Your task to perform on an android device: turn on improve location accuracy Image 0: 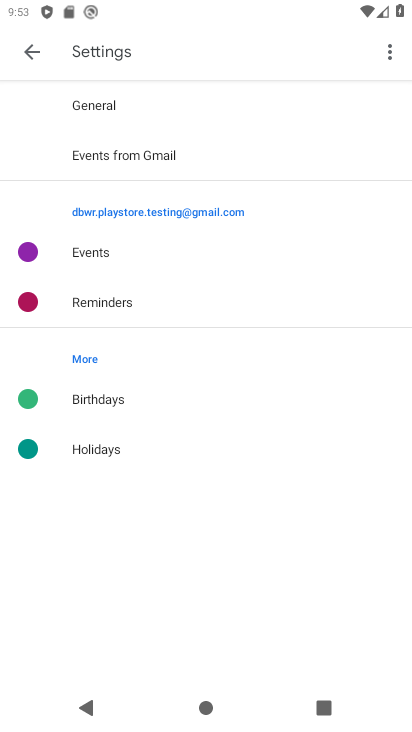
Step 0: press home button
Your task to perform on an android device: turn on improve location accuracy Image 1: 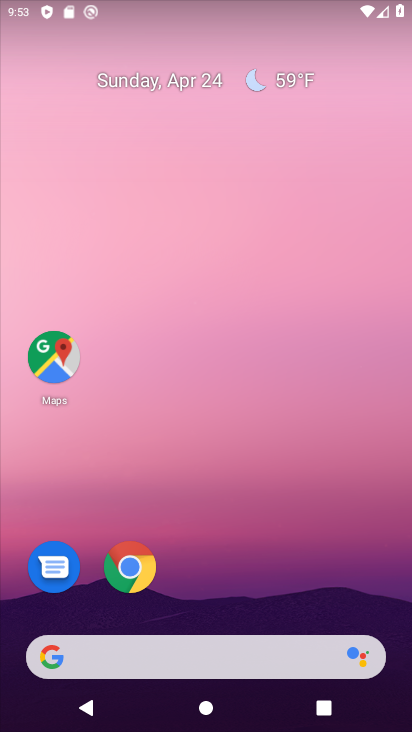
Step 1: drag from (395, 466) to (384, 179)
Your task to perform on an android device: turn on improve location accuracy Image 2: 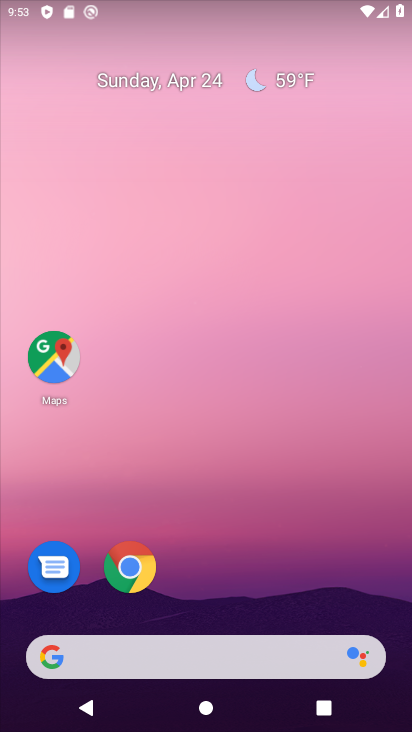
Step 2: drag from (380, 359) to (380, 223)
Your task to perform on an android device: turn on improve location accuracy Image 3: 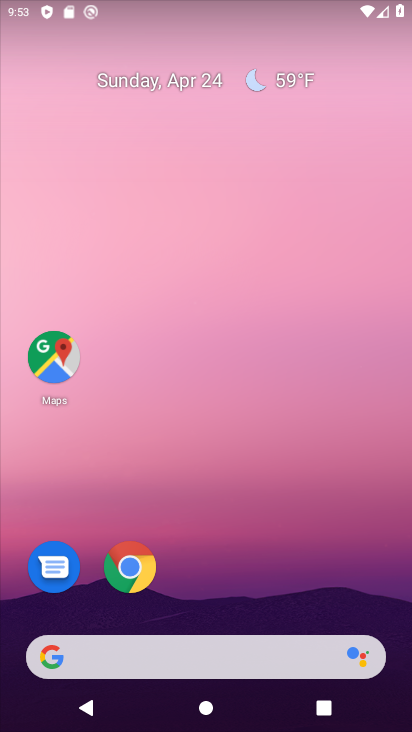
Step 3: drag from (398, 648) to (375, 208)
Your task to perform on an android device: turn on improve location accuracy Image 4: 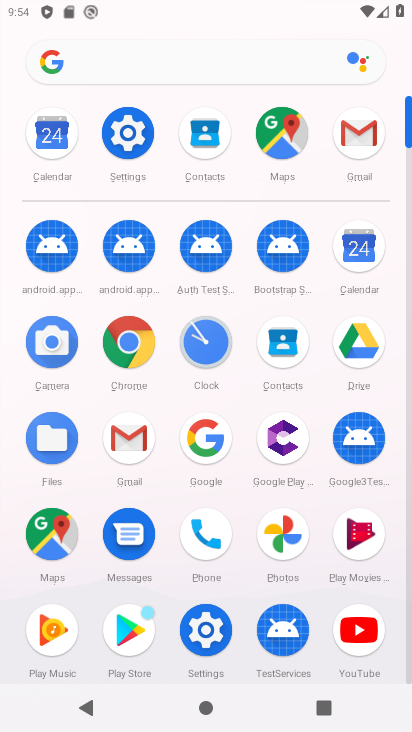
Step 4: click (207, 630)
Your task to perform on an android device: turn on improve location accuracy Image 5: 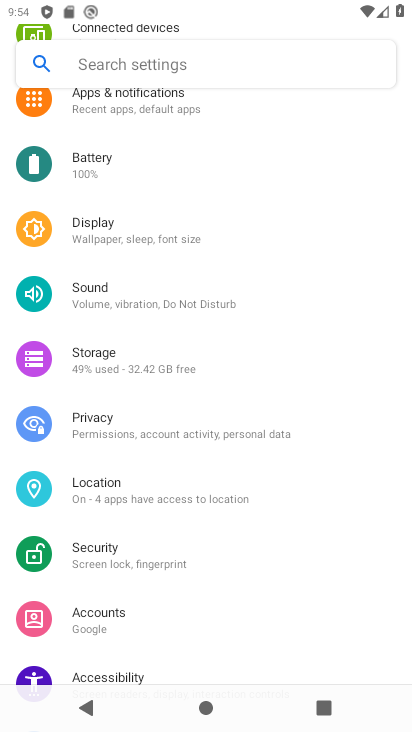
Step 5: click (97, 488)
Your task to perform on an android device: turn on improve location accuracy Image 6: 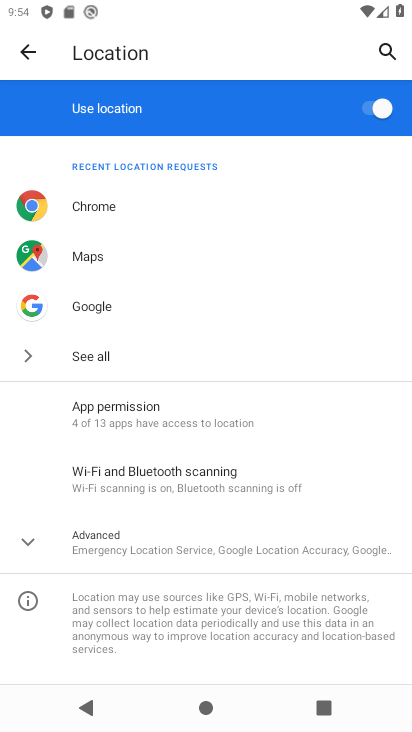
Step 6: drag from (287, 390) to (287, 346)
Your task to perform on an android device: turn on improve location accuracy Image 7: 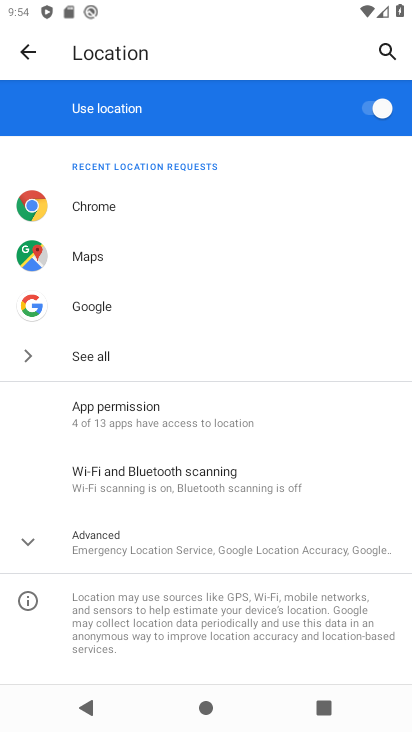
Step 7: drag from (299, 599) to (317, 339)
Your task to perform on an android device: turn on improve location accuracy Image 8: 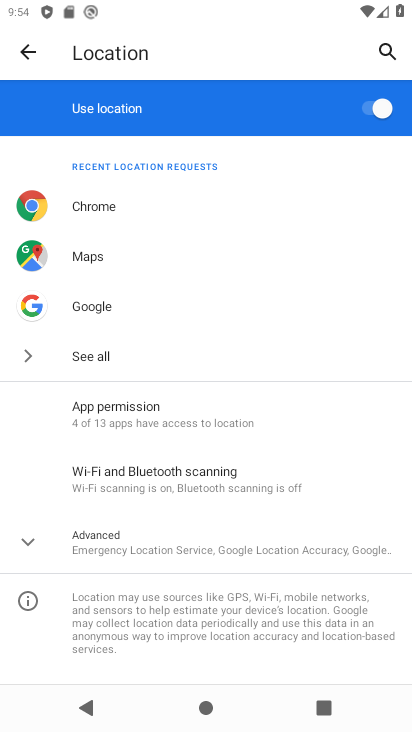
Step 8: click (38, 538)
Your task to perform on an android device: turn on improve location accuracy Image 9: 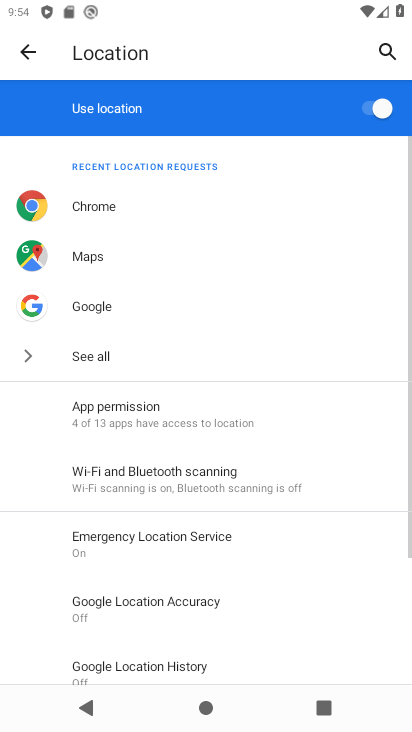
Step 9: drag from (303, 602) to (302, 335)
Your task to perform on an android device: turn on improve location accuracy Image 10: 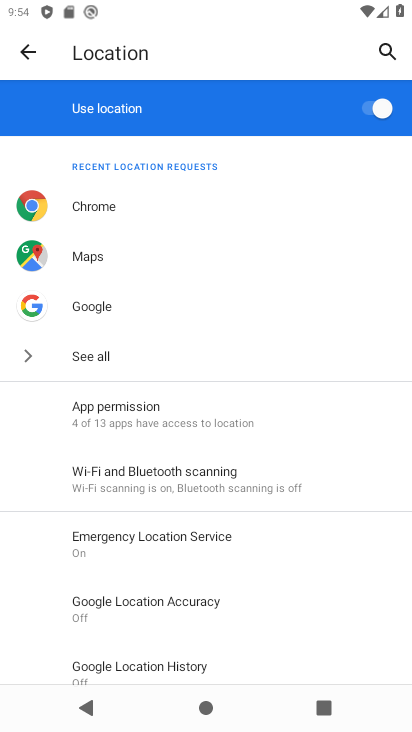
Step 10: click (107, 606)
Your task to perform on an android device: turn on improve location accuracy Image 11: 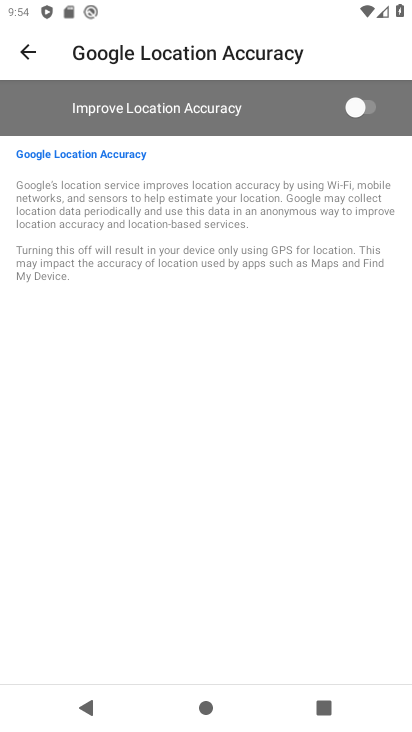
Step 11: click (362, 109)
Your task to perform on an android device: turn on improve location accuracy Image 12: 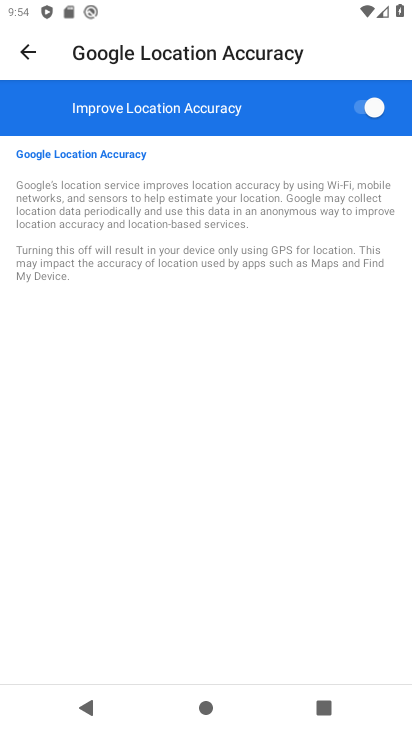
Step 12: task complete